Your task to perform on an android device: delete a single message in the gmail app Image 0: 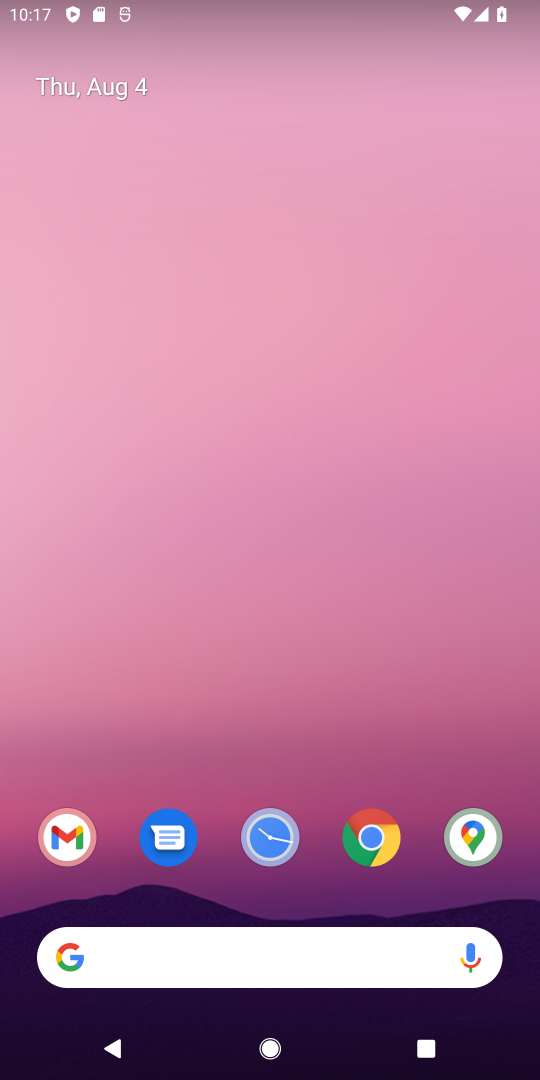
Step 0: drag from (426, 906) to (290, 3)
Your task to perform on an android device: delete a single message in the gmail app Image 1: 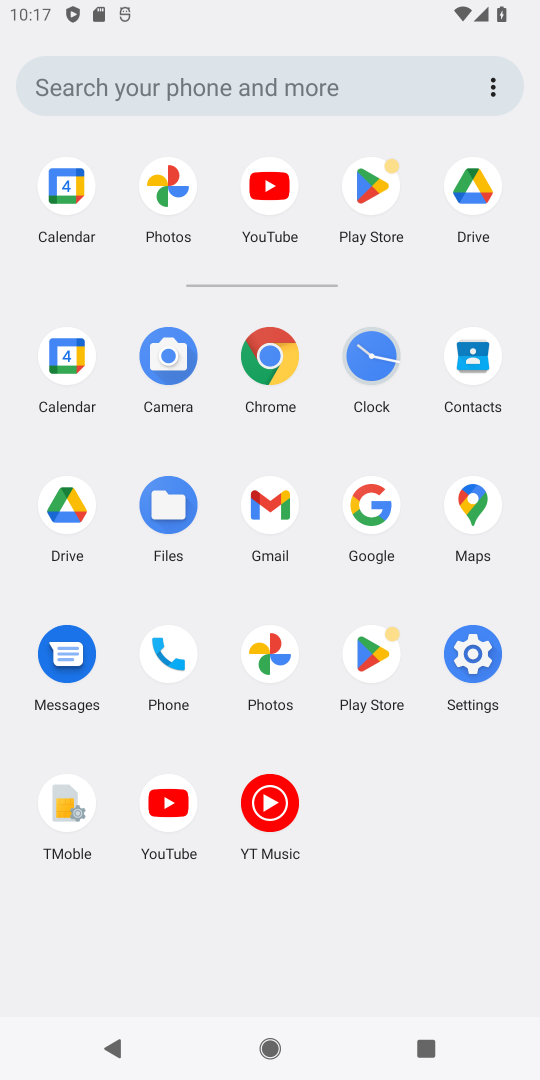
Step 1: click (278, 516)
Your task to perform on an android device: delete a single message in the gmail app Image 2: 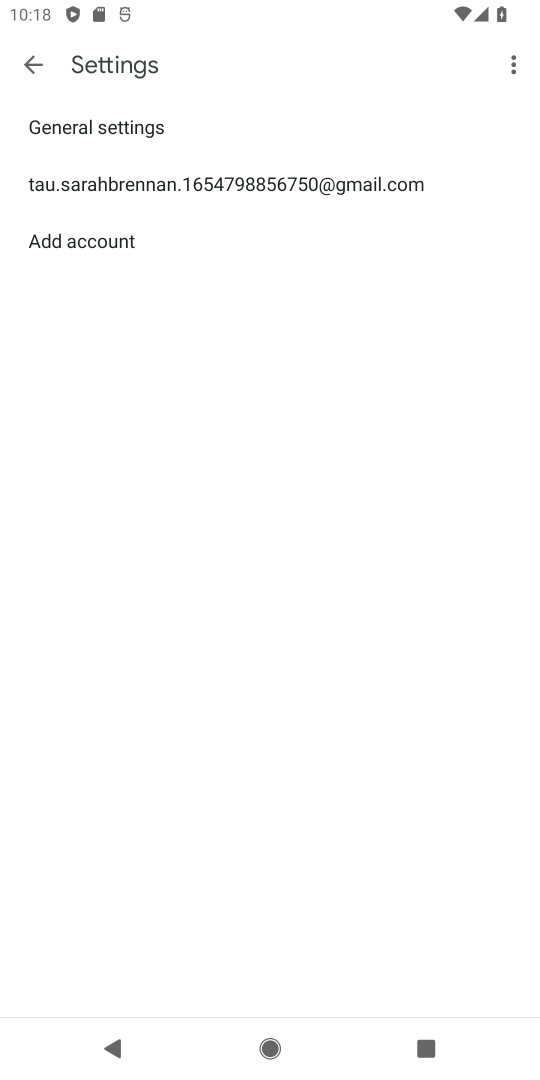
Step 2: press back button
Your task to perform on an android device: delete a single message in the gmail app Image 3: 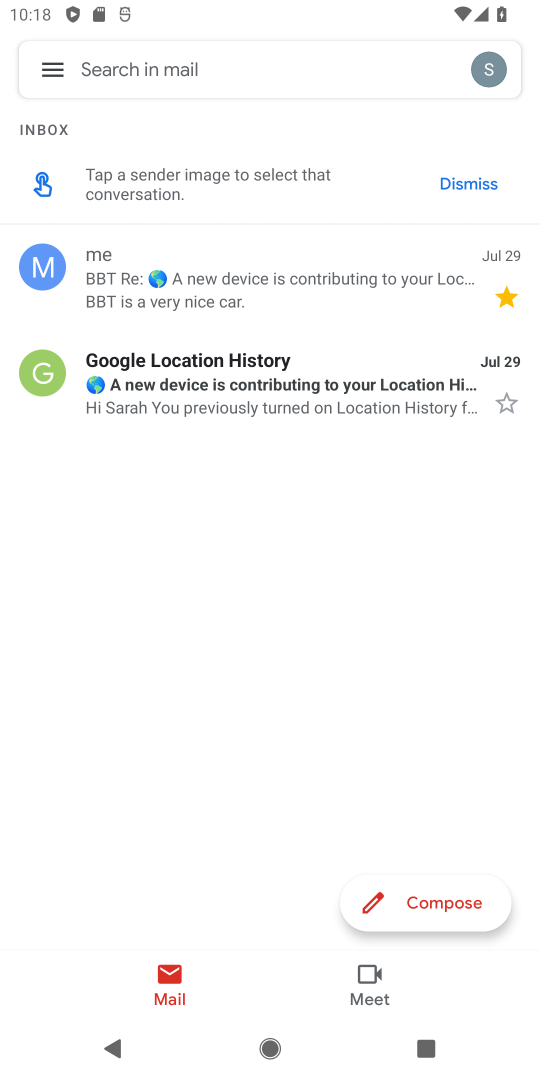
Step 3: click (188, 267)
Your task to perform on an android device: delete a single message in the gmail app Image 4: 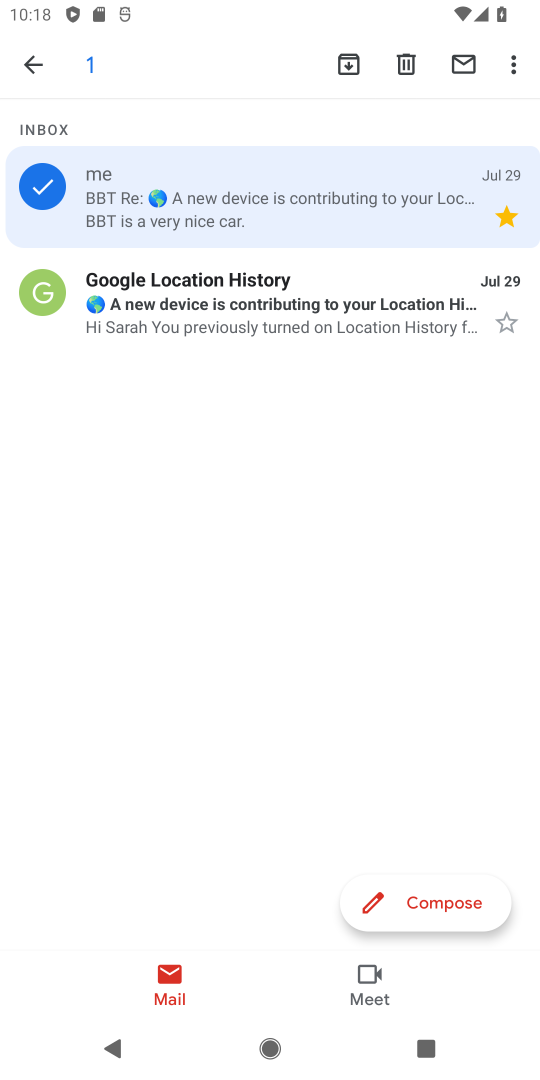
Step 4: click (403, 67)
Your task to perform on an android device: delete a single message in the gmail app Image 5: 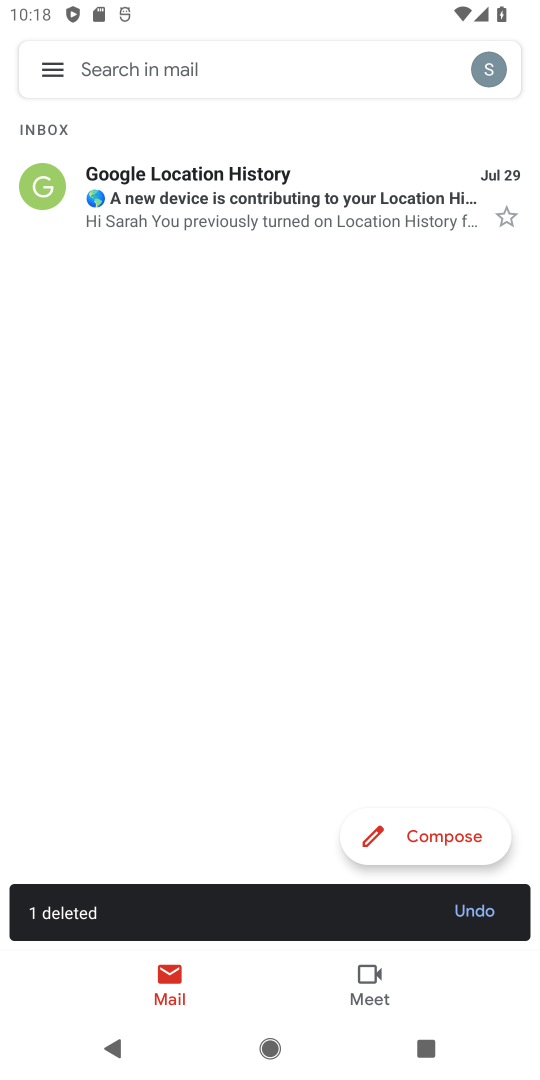
Step 5: task complete